Your task to perform on an android device: set the timer Image 0: 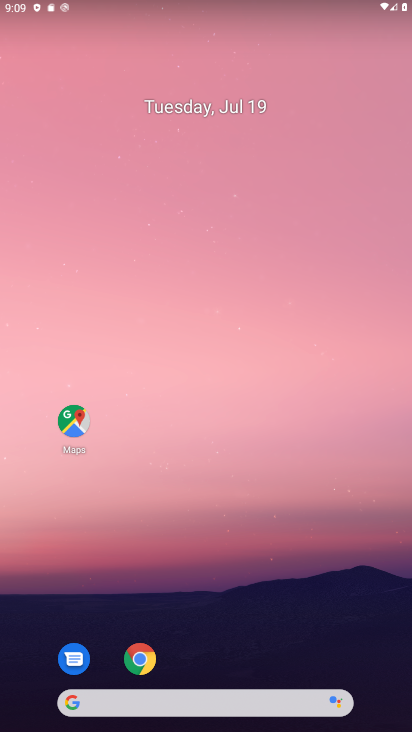
Step 0: drag from (268, 639) to (225, 269)
Your task to perform on an android device: set the timer Image 1: 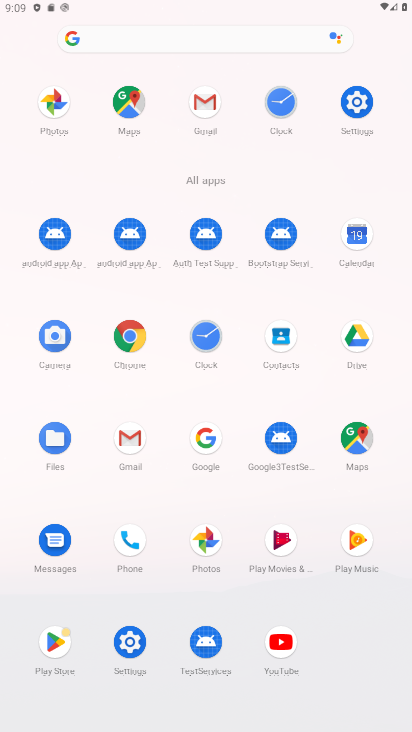
Step 1: click (209, 316)
Your task to perform on an android device: set the timer Image 2: 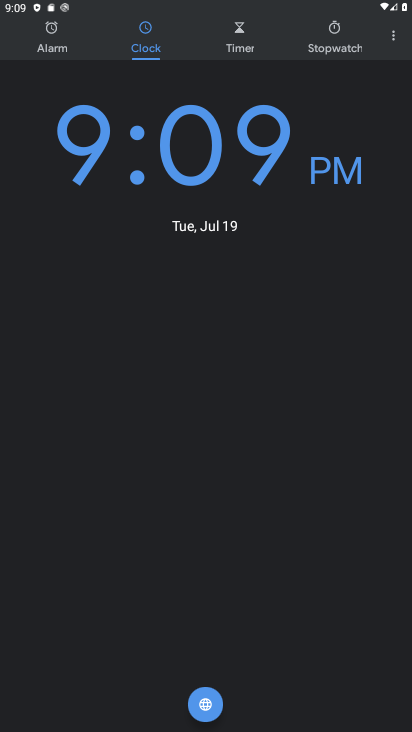
Step 2: click (236, 33)
Your task to perform on an android device: set the timer Image 3: 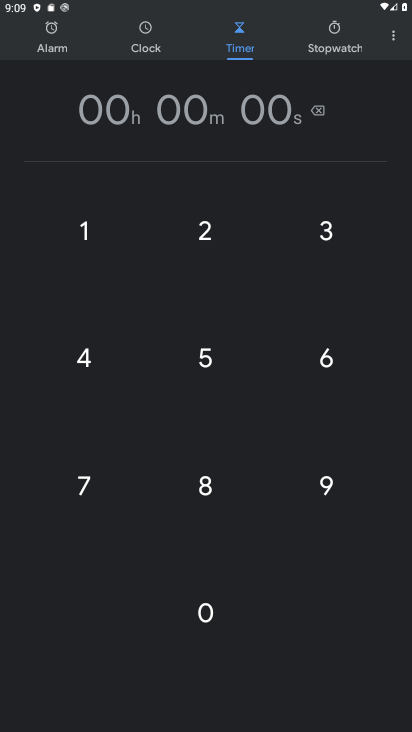
Step 3: click (100, 236)
Your task to perform on an android device: set the timer Image 4: 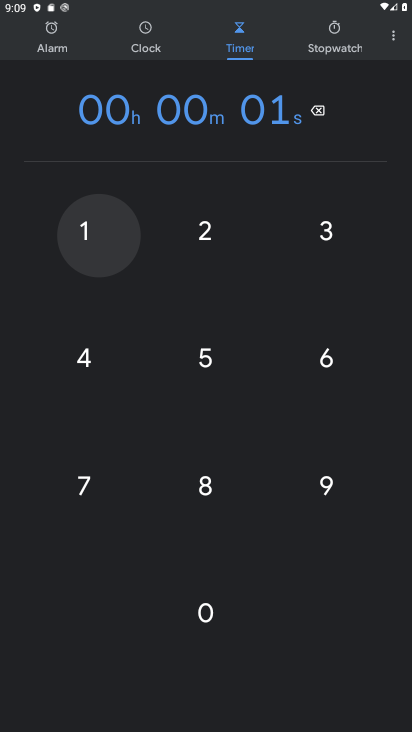
Step 4: click (100, 236)
Your task to perform on an android device: set the timer Image 5: 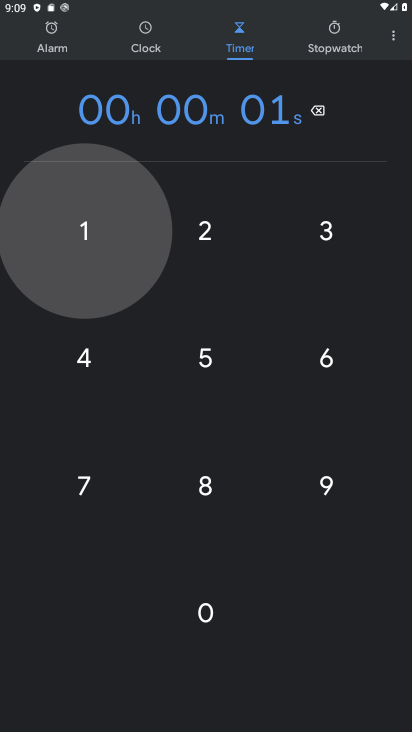
Step 5: click (100, 236)
Your task to perform on an android device: set the timer Image 6: 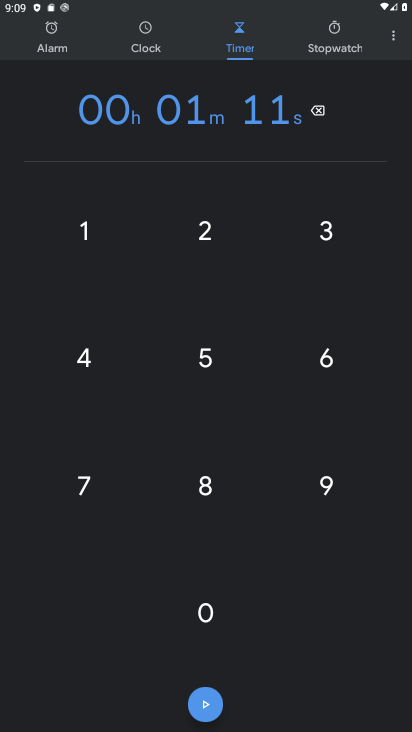
Step 6: click (100, 236)
Your task to perform on an android device: set the timer Image 7: 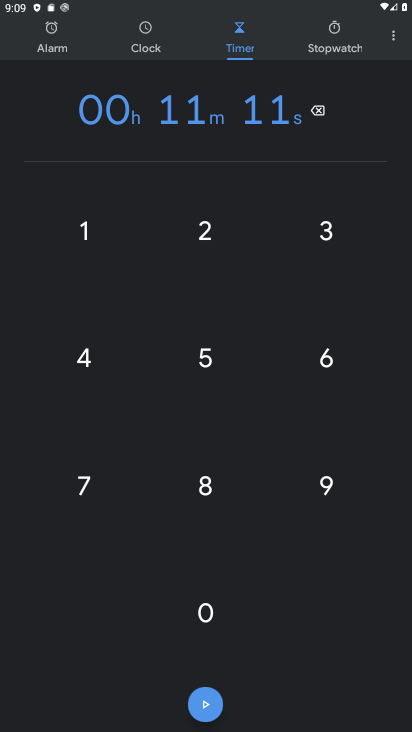
Step 7: click (100, 236)
Your task to perform on an android device: set the timer Image 8: 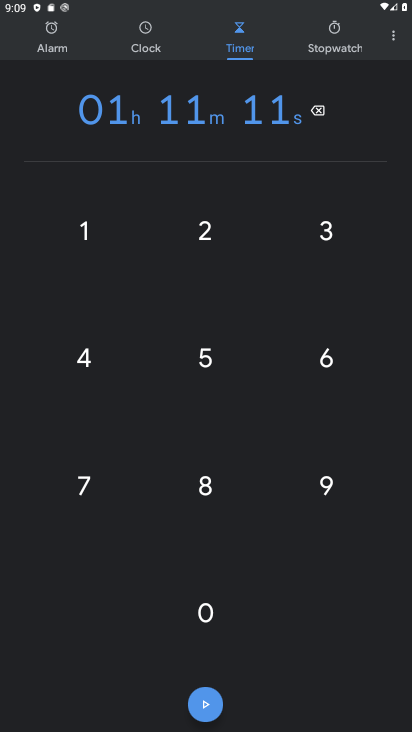
Step 8: click (332, 528)
Your task to perform on an android device: set the timer Image 9: 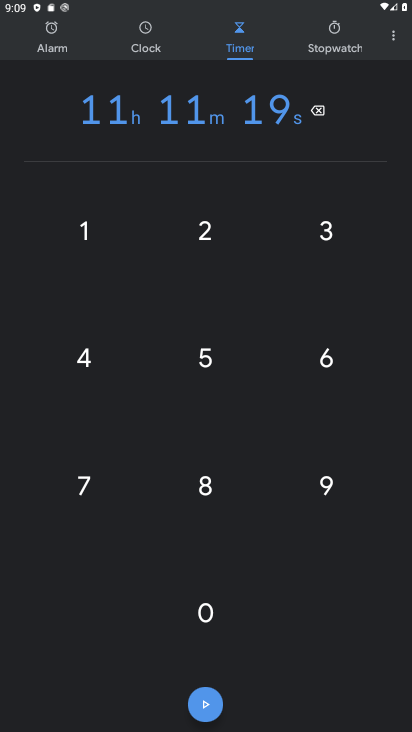
Step 9: click (199, 711)
Your task to perform on an android device: set the timer Image 10: 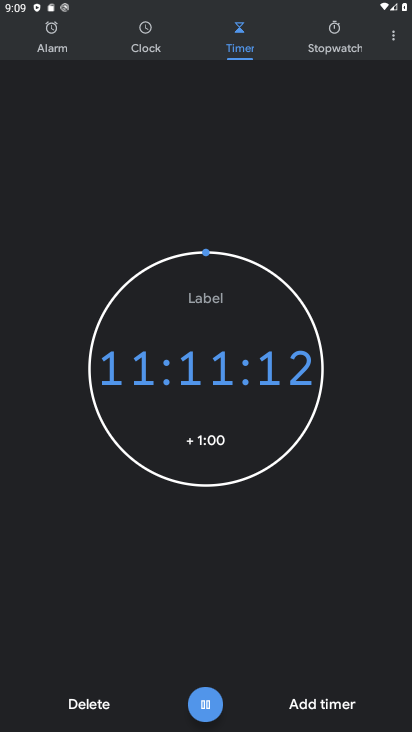
Step 10: task complete